Your task to perform on an android device: manage bookmarks in the chrome app Image 0: 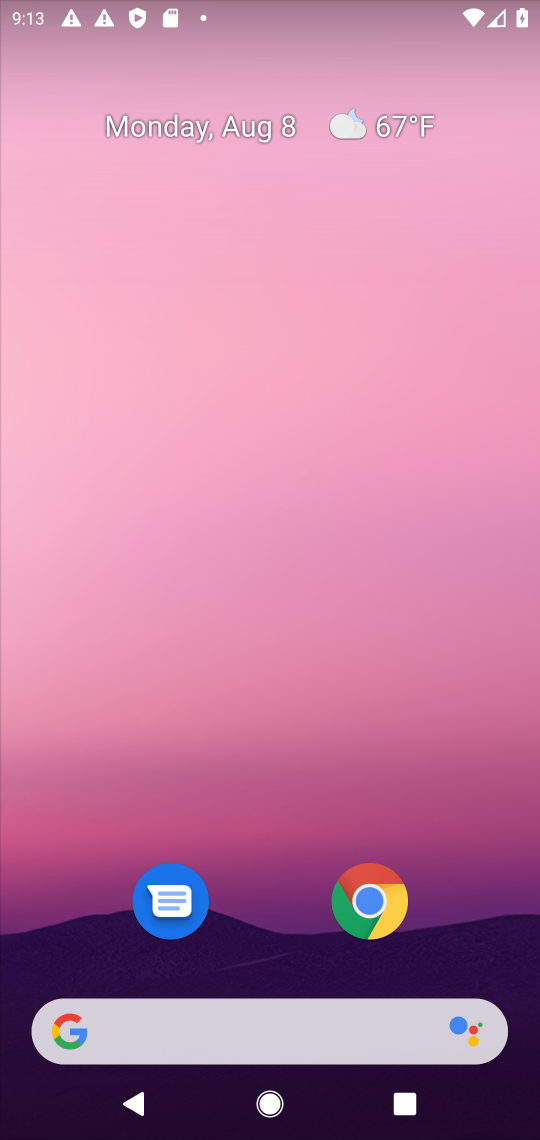
Step 0: click (366, 913)
Your task to perform on an android device: manage bookmarks in the chrome app Image 1: 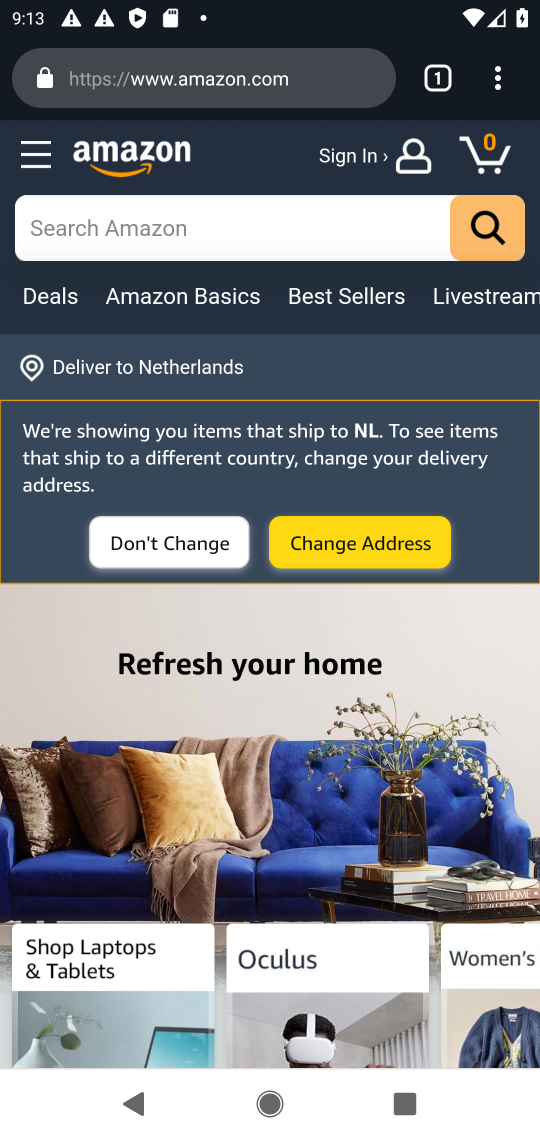
Step 1: click (499, 83)
Your task to perform on an android device: manage bookmarks in the chrome app Image 2: 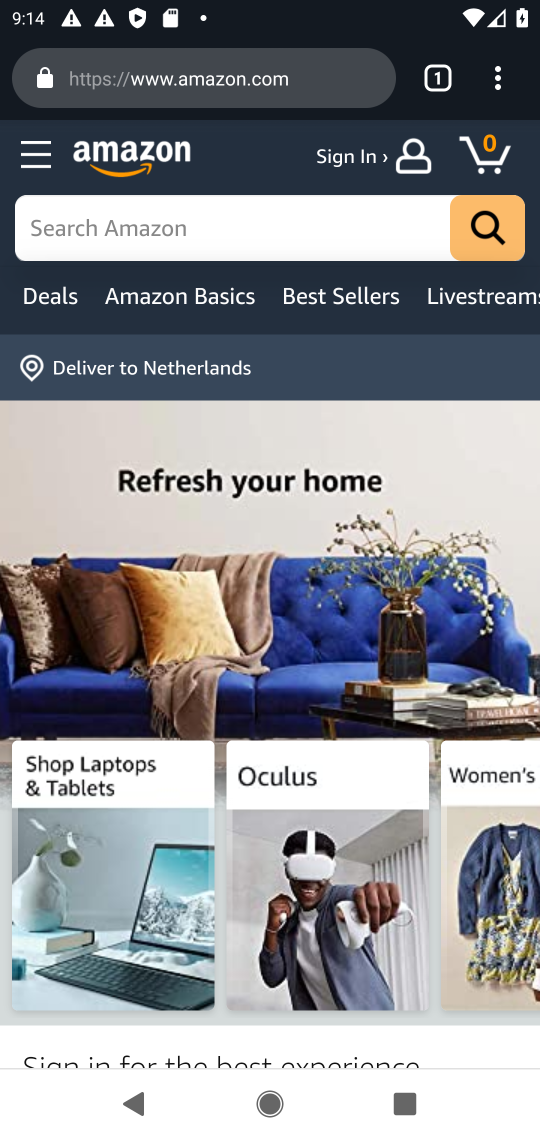
Step 2: click (499, 83)
Your task to perform on an android device: manage bookmarks in the chrome app Image 3: 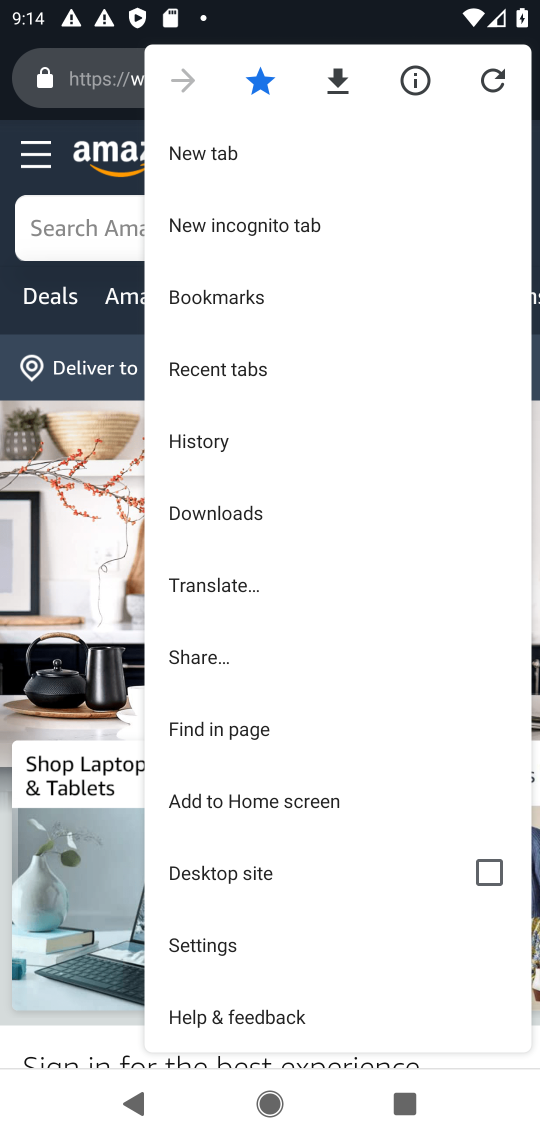
Step 3: click (263, 290)
Your task to perform on an android device: manage bookmarks in the chrome app Image 4: 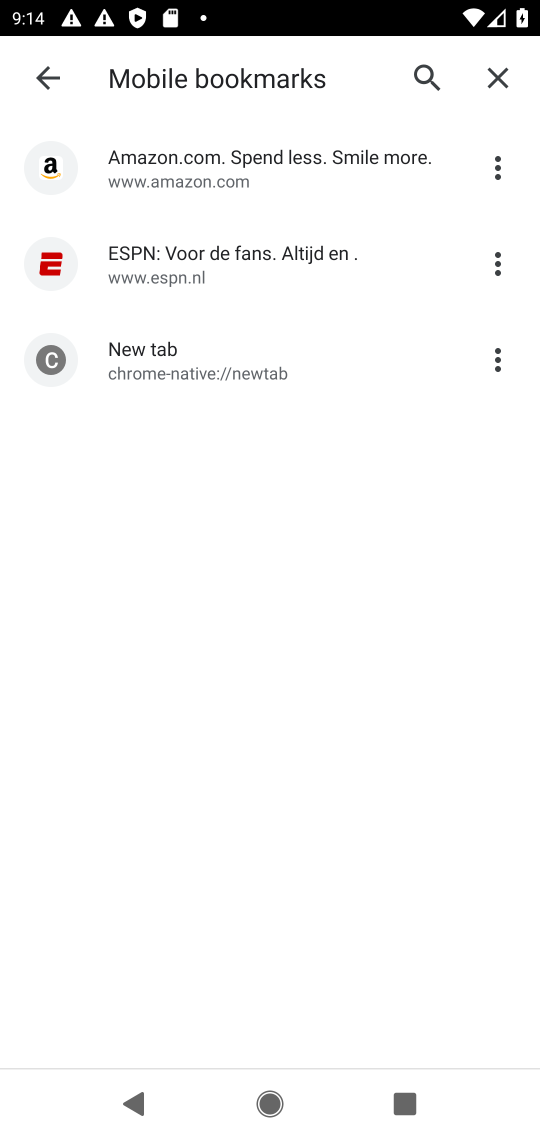
Step 4: click (496, 162)
Your task to perform on an android device: manage bookmarks in the chrome app Image 5: 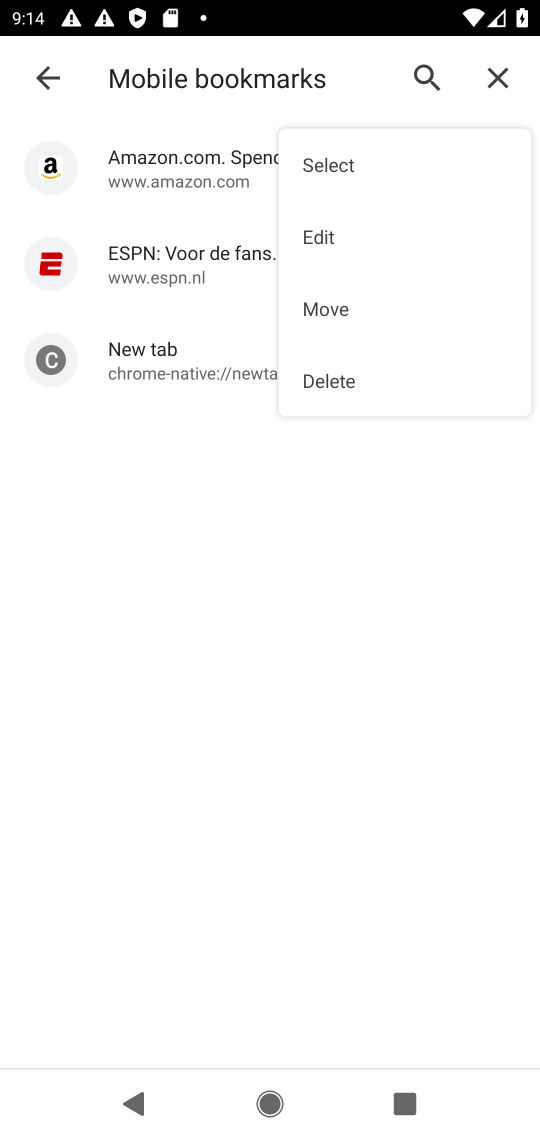
Step 5: click (328, 376)
Your task to perform on an android device: manage bookmarks in the chrome app Image 6: 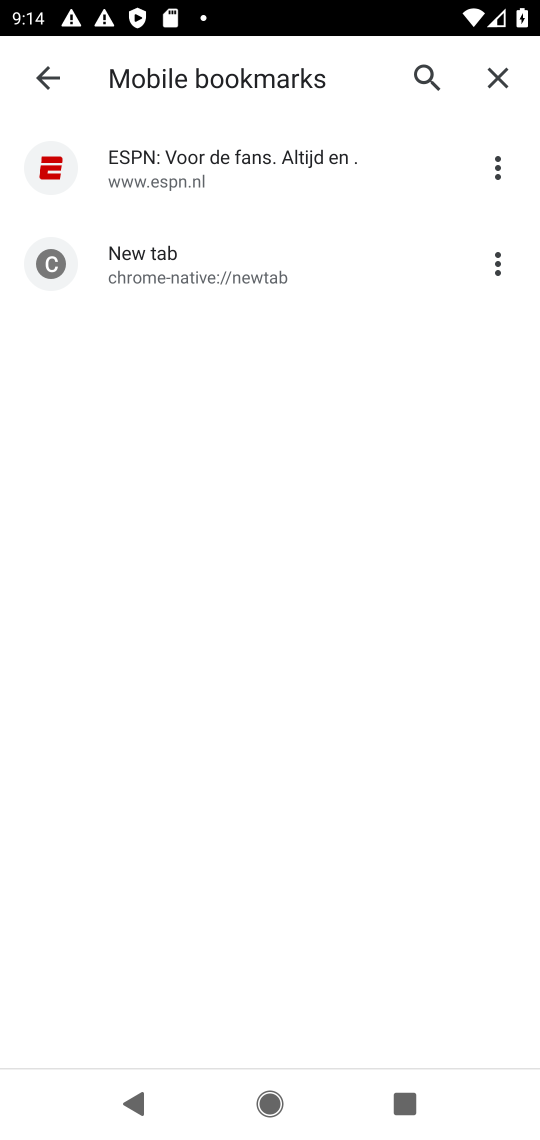
Step 6: task complete